Your task to perform on an android device: turn smart compose on in the gmail app Image 0: 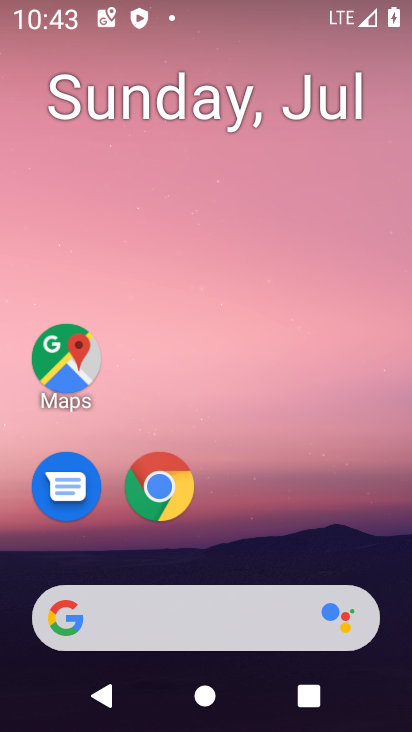
Step 0: press home button
Your task to perform on an android device: turn smart compose on in the gmail app Image 1: 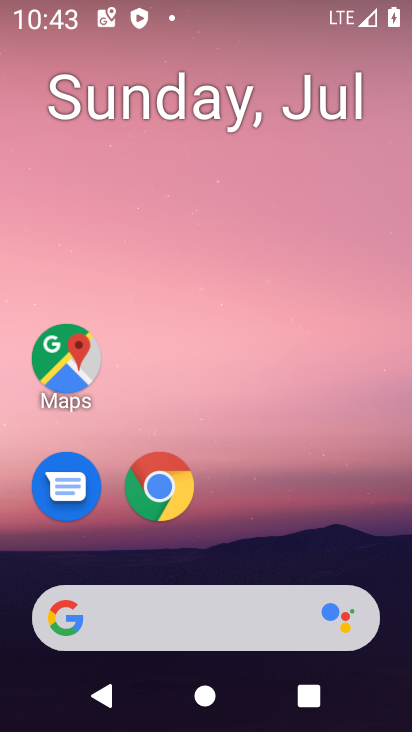
Step 1: drag from (340, 512) to (317, 127)
Your task to perform on an android device: turn smart compose on in the gmail app Image 2: 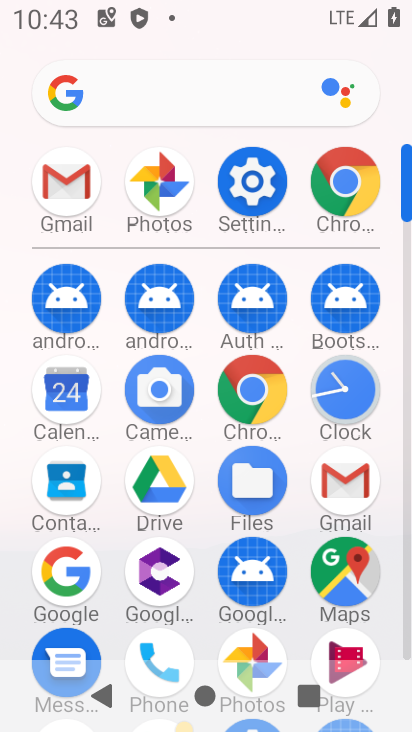
Step 2: click (346, 483)
Your task to perform on an android device: turn smart compose on in the gmail app Image 3: 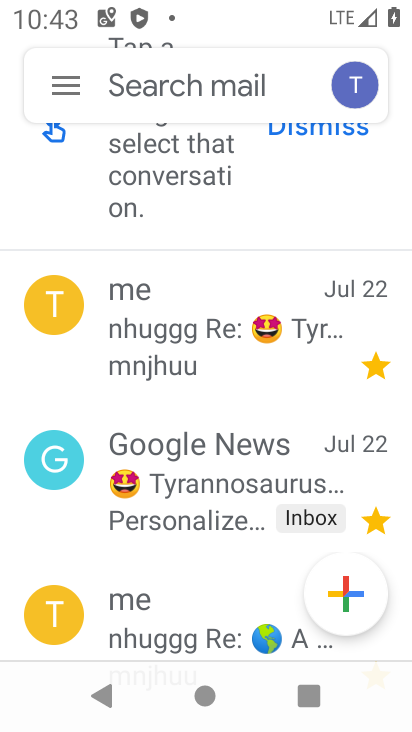
Step 3: click (70, 92)
Your task to perform on an android device: turn smart compose on in the gmail app Image 4: 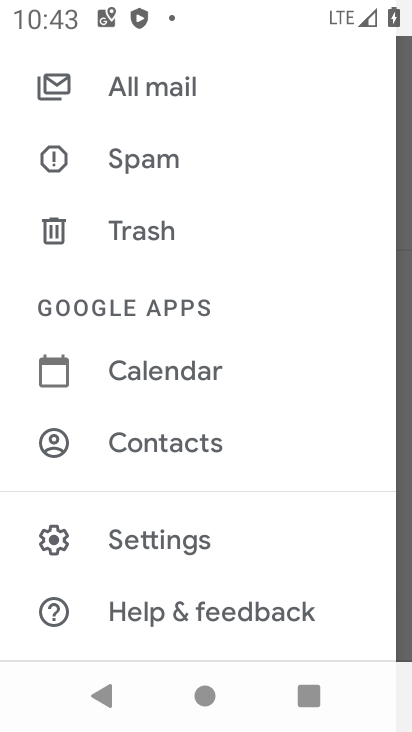
Step 4: click (248, 518)
Your task to perform on an android device: turn smart compose on in the gmail app Image 5: 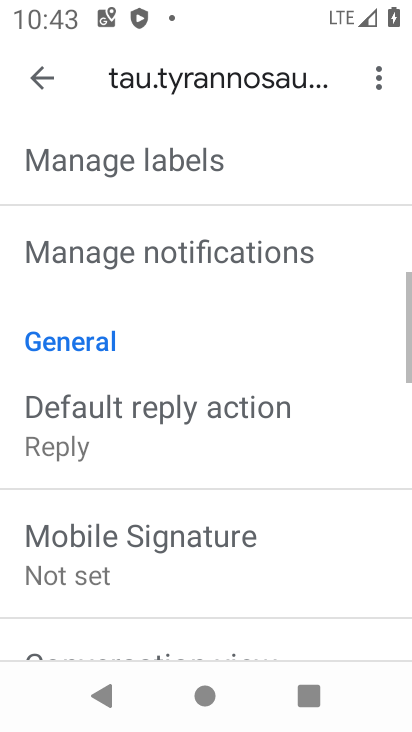
Step 5: task complete